Your task to perform on an android device: Open Chrome and go to settings Image 0: 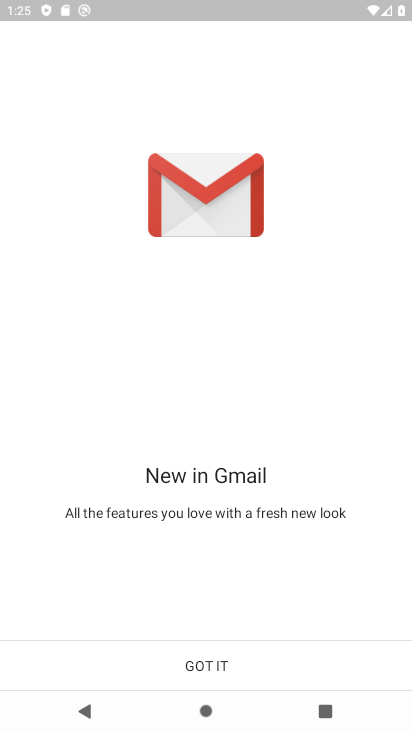
Step 0: press home button
Your task to perform on an android device: Open Chrome and go to settings Image 1: 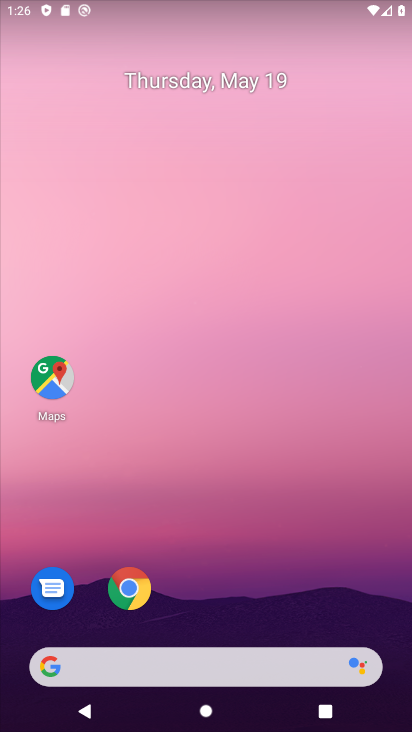
Step 1: click (138, 585)
Your task to perform on an android device: Open Chrome and go to settings Image 2: 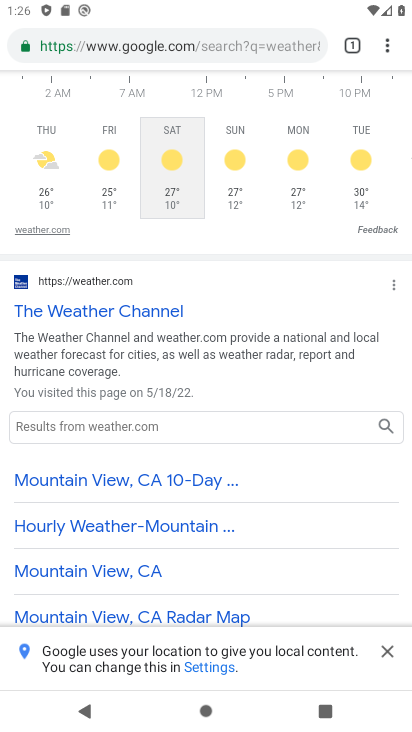
Step 2: task complete